Your task to perform on an android device: Go to Android settings Image 0: 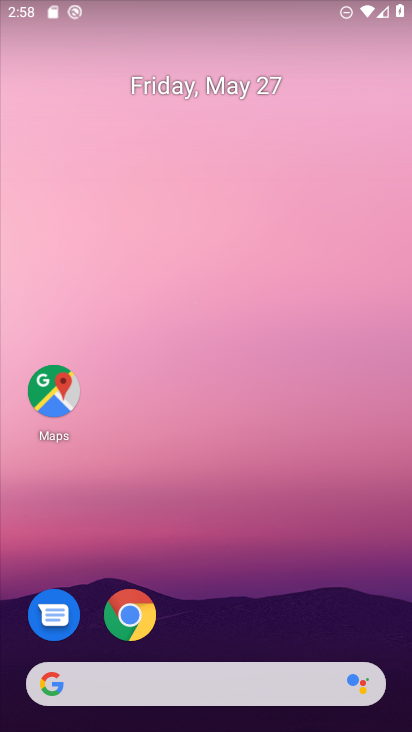
Step 0: drag from (295, 528) to (204, 29)
Your task to perform on an android device: Go to Android settings Image 1: 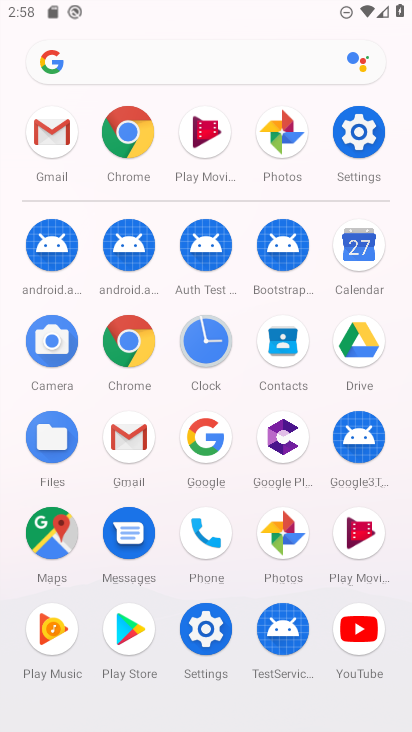
Step 1: click (365, 143)
Your task to perform on an android device: Go to Android settings Image 2: 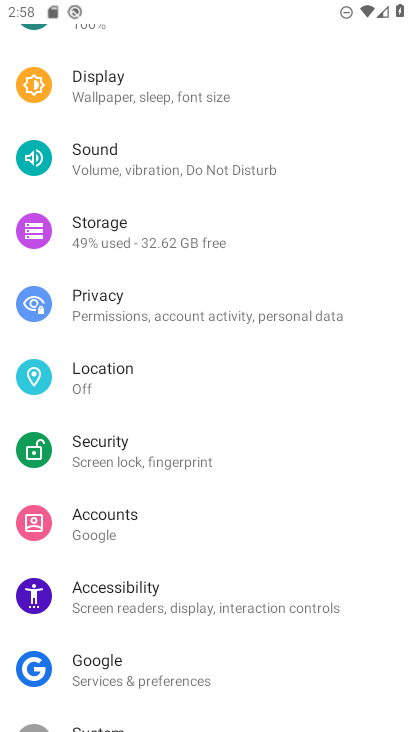
Step 2: drag from (248, 603) to (239, 258)
Your task to perform on an android device: Go to Android settings Image 3: 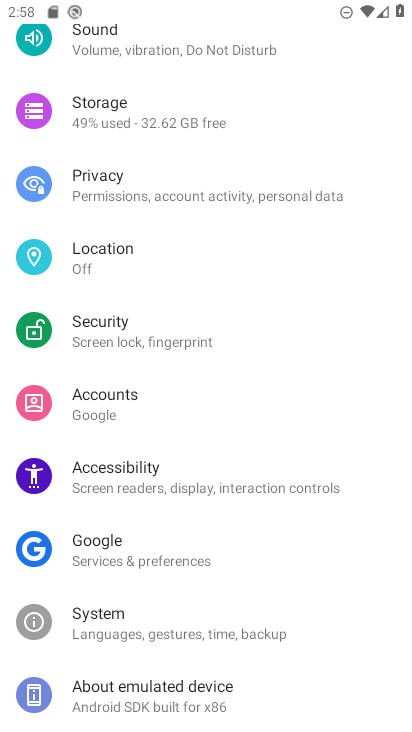
Step 3: click (226, 689)
Your task to perform on an android device: Go to Android settings Image 4: 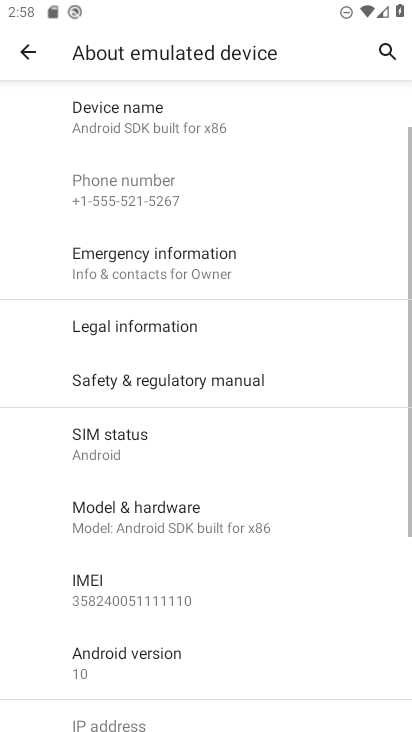
Step 4: click (173, 667)
Your task to perform on an android device: Go to Android settings Image 5: 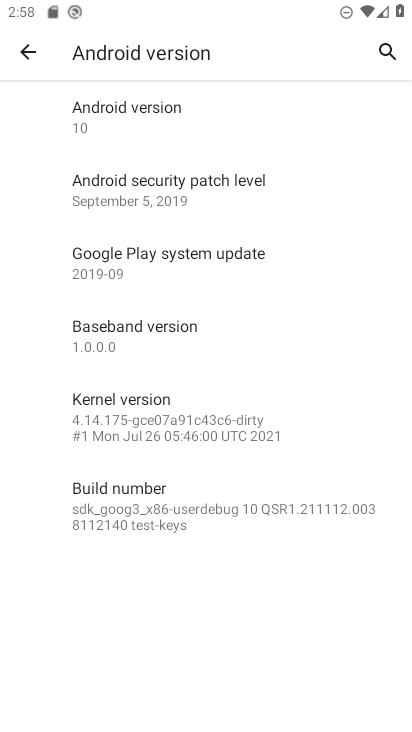
Step 5: task complete